Your task to perform on an android device: Open Google Maps and go to "Timeline" Image 0: 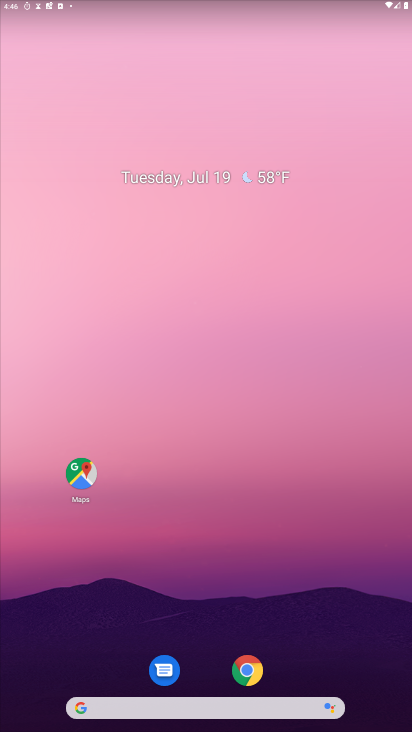
Step 0: drag from (301, 655) to (306, 0)
Your task to perform on an android device: Open Google Maps and go to "Timeline" Image 1: 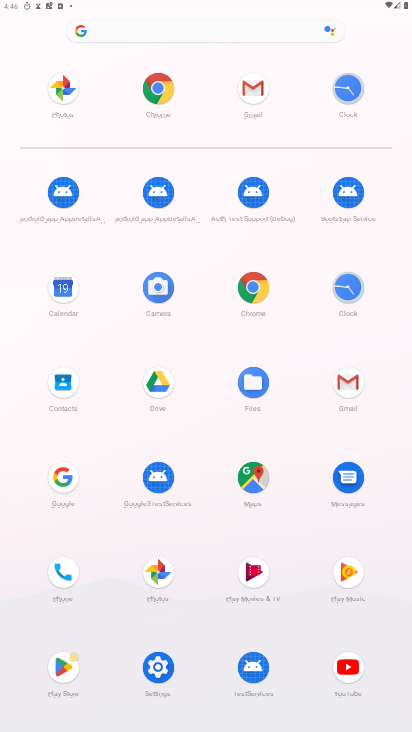
Step 1: click (245, 478)
Your task to perform on an android device: Open Google Maps and go to "Timeline" Image 2: 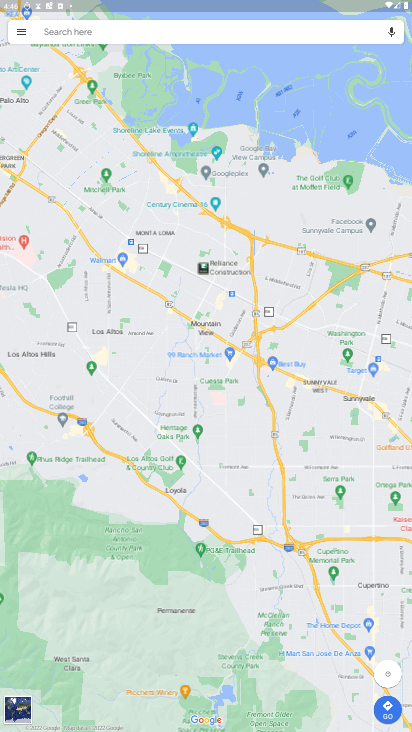
Step 2: click (26, 29)
Your task to perform on an android device: Open Google Maps and go to "Timeline" Image 3: 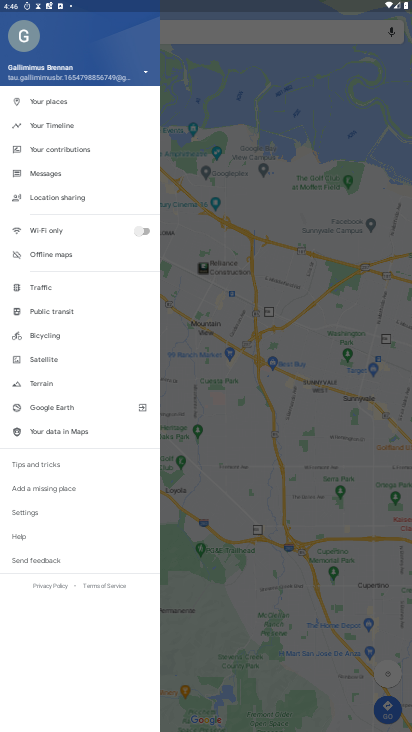
Step 3: click (61, 120)
Your task to perform on an android device: Open Google Maps and go to "Timeline" Image 4: 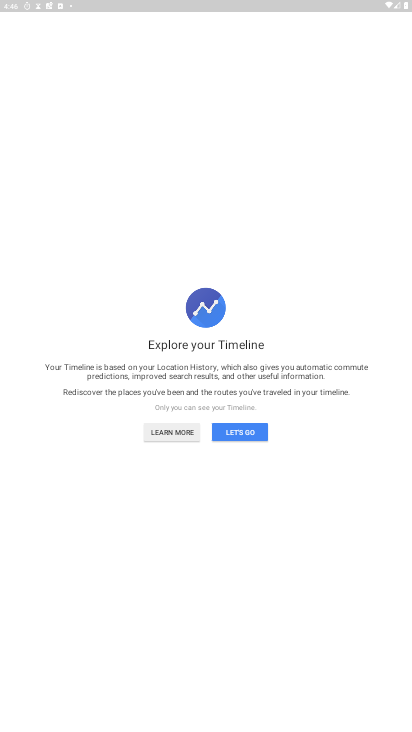
Step 4: click (238, 434)
Your task to perform on an android device: Open Google Maps and go to "Timeline" Image 5: 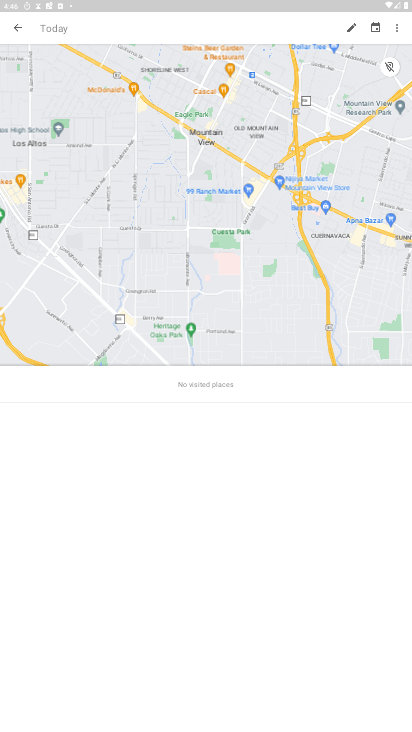
Step 5: click (399, 26)
Your task to perform on an android device: Open Google Maps and go to "Timeline" Image 6: 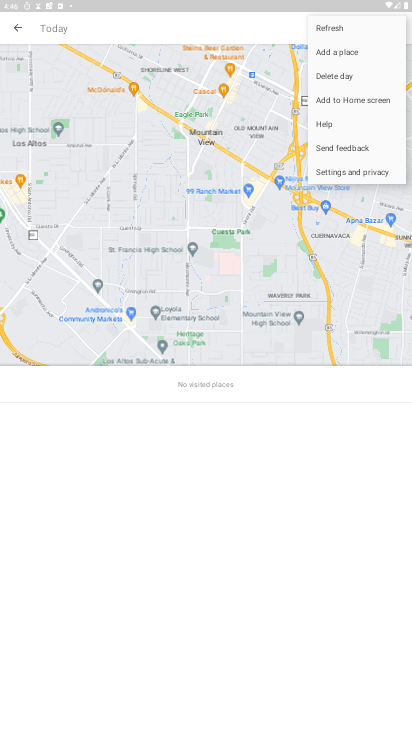
Step 6: click (355, 171)
Your task to perform on an android device: Open Google Maps and go to "Timeline" Image 7: 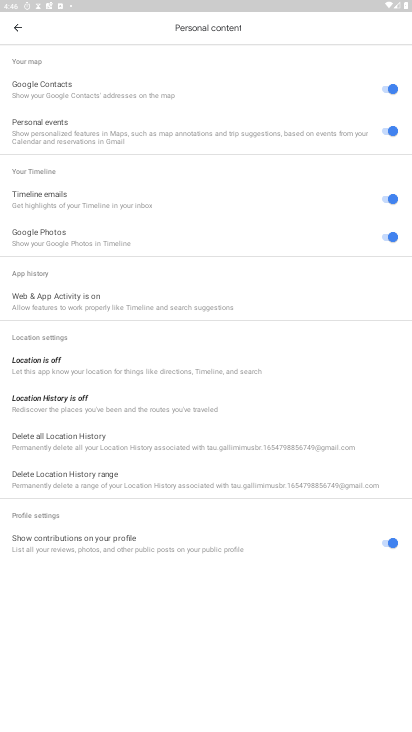
Step 7: task complete